Your task to perform on an android device: change alarm snooze length Image 0: 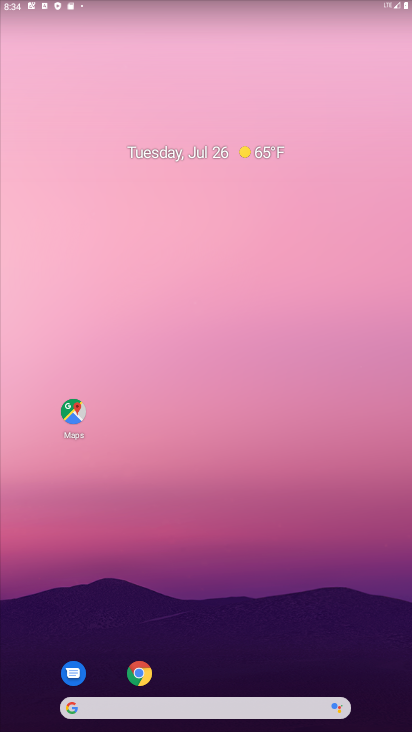
Step 0: drag from (221, 644) to (225, 216)
Your task to perform on an android device: change alarm snooze length Image 1: 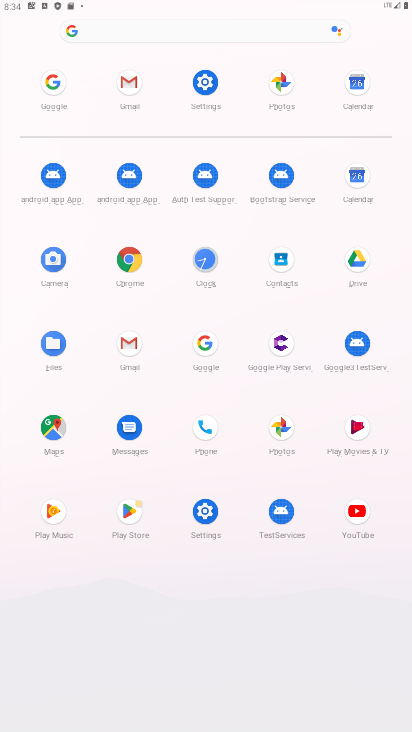
Step 1: click (205, 274)
Your task to perform on an android device: change alarm snooze length Image 2: 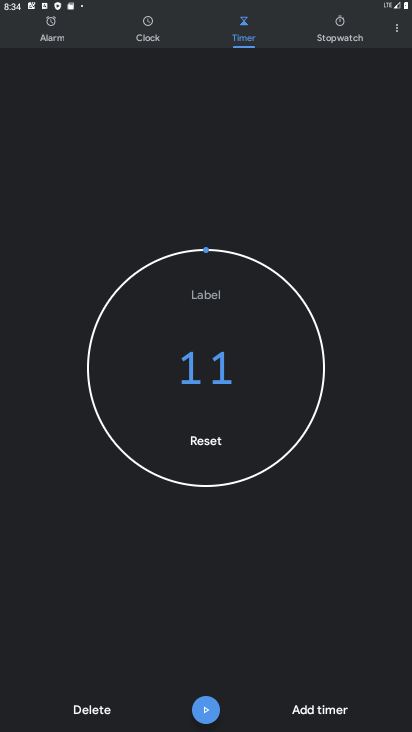
Step 2: click (380, 21)
Your task to perform on an android device: change alarm snooze length Image 3: 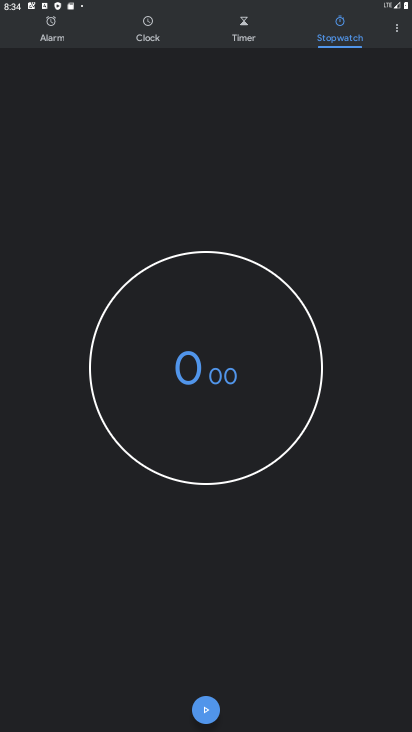
Step 3: click (384, 35)
Your task to perform on an android device: change alarm snooze length Image 4: 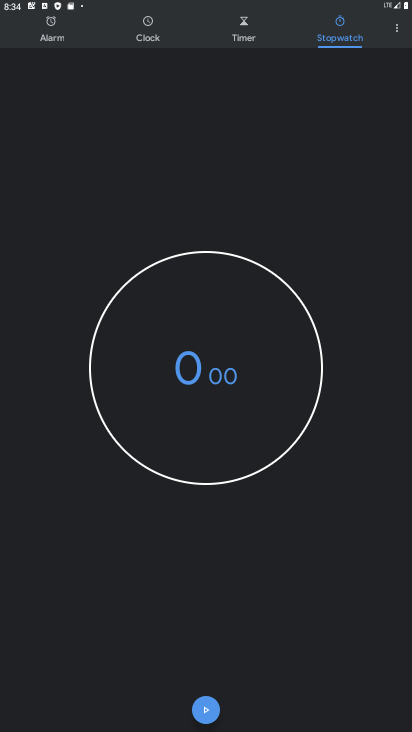
Step 4: click (396, 29)
Your task to perform on an android device: change alarm snooze length Image 5: 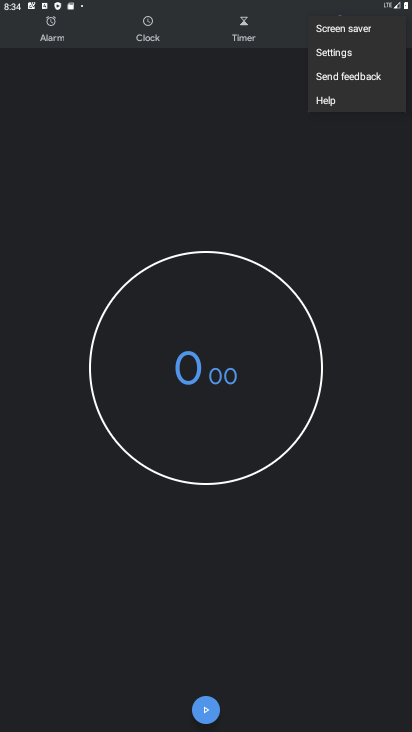
Step 5: click (353, 59)
Your task to perform on an android device: change alarm snooze length Image 6: 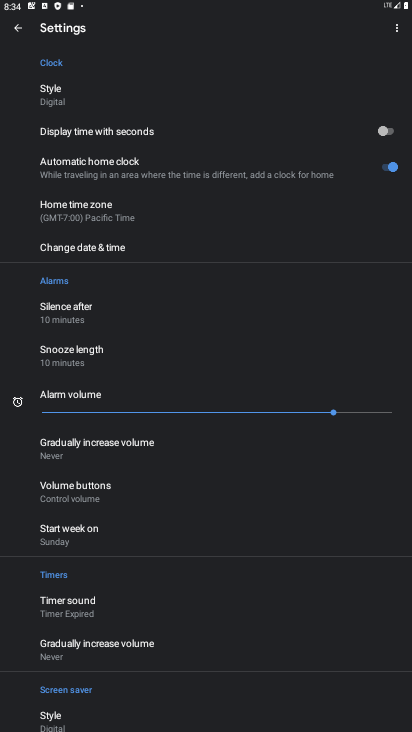
Step 6: click (73, 358)
Your task to perform on an android device: change alarm snooze length Image 7: 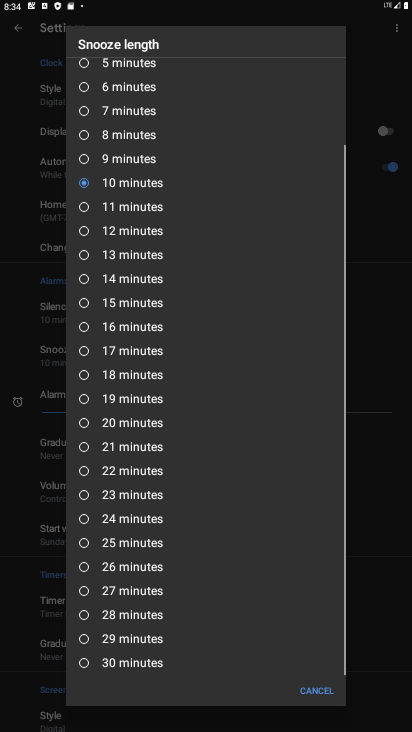
Step 7: click (120, 354)
Your task to perform on an android device: change alarm snooze length Image 8: 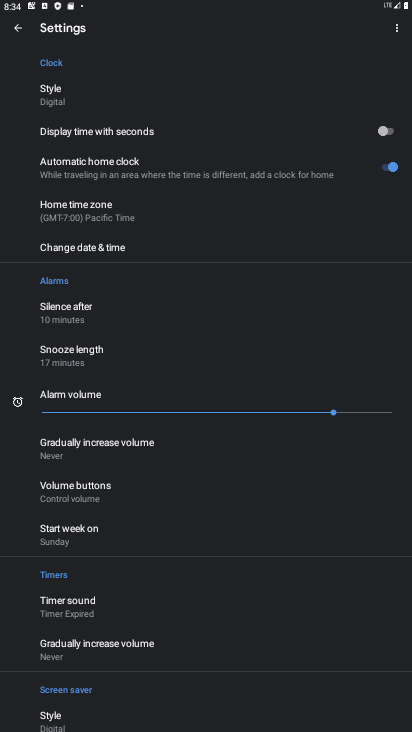
Step 8: task complete